Your task to perform on an android device: open app "The Home Depot" Image 0: 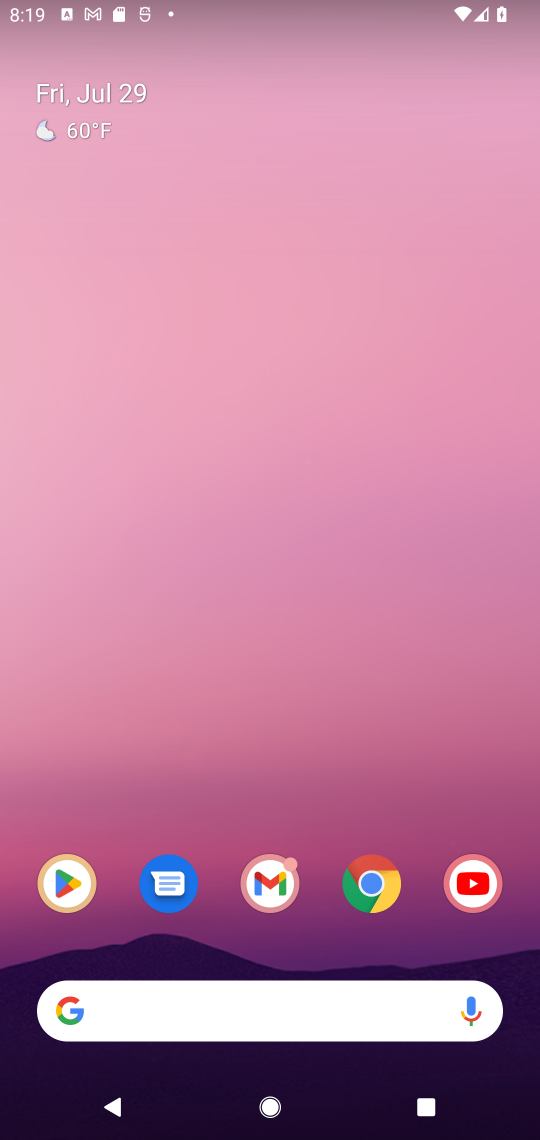
Step 0: click (78, 866)
Your task to perform on an android device: open app "The Home Depot" Image 1: 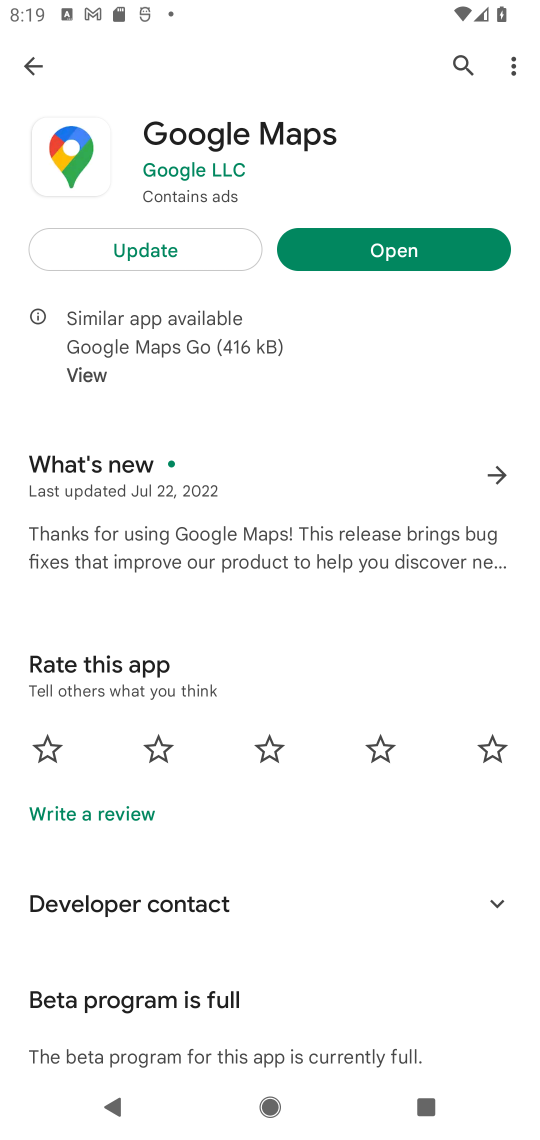
Step 1: click (455, 72)
Your task to perform on an android device: open app "The Home Depot" Image 2: 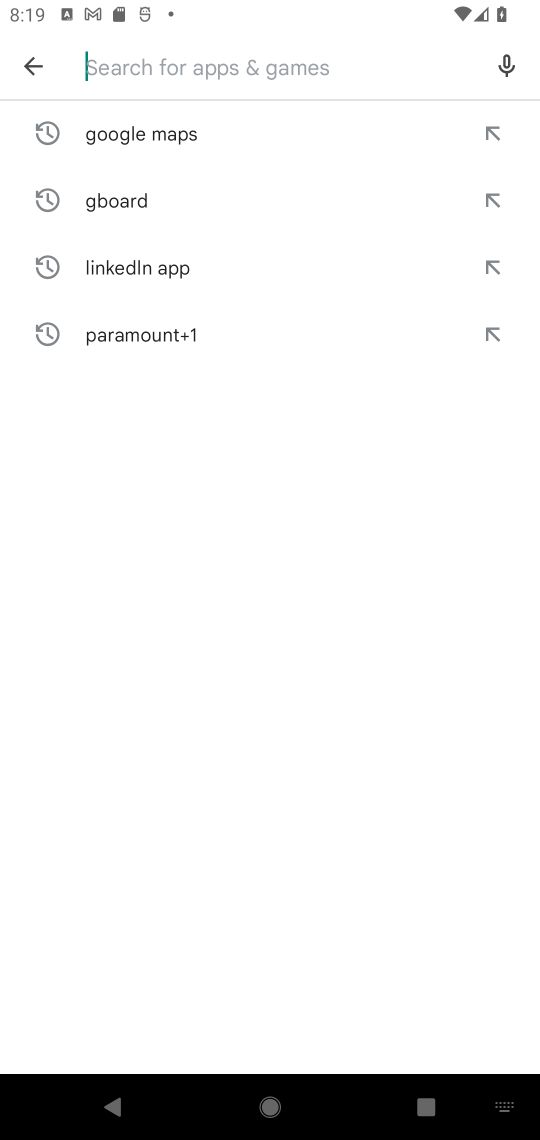
Step 2: press back button
Your task to perform on an android device: open app "The Home Depot" Image 3: 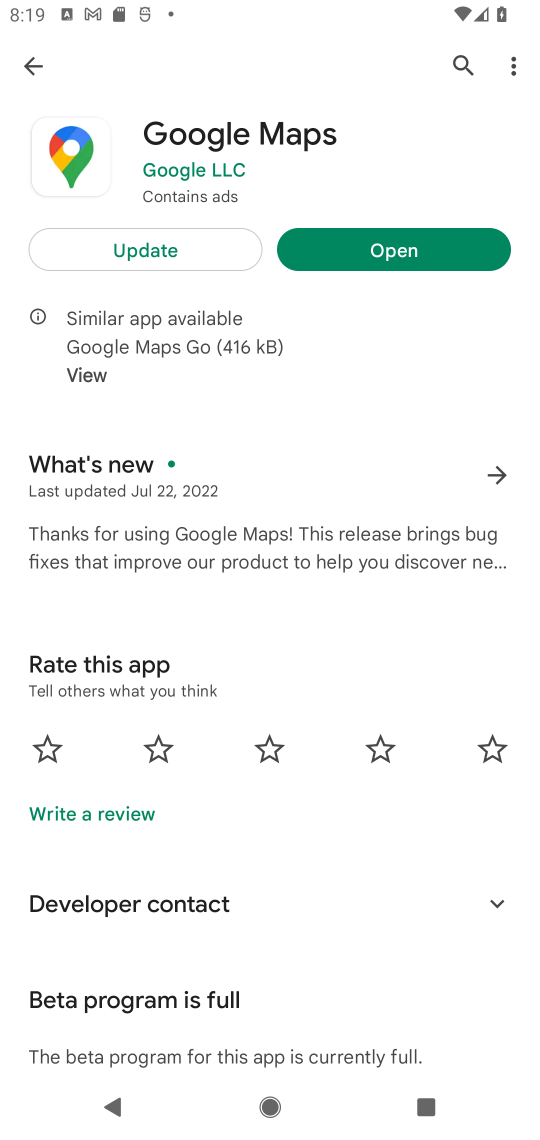
Step 3: press home button
Your task to perform on an android device: open app "The Home Depot" Image 4: 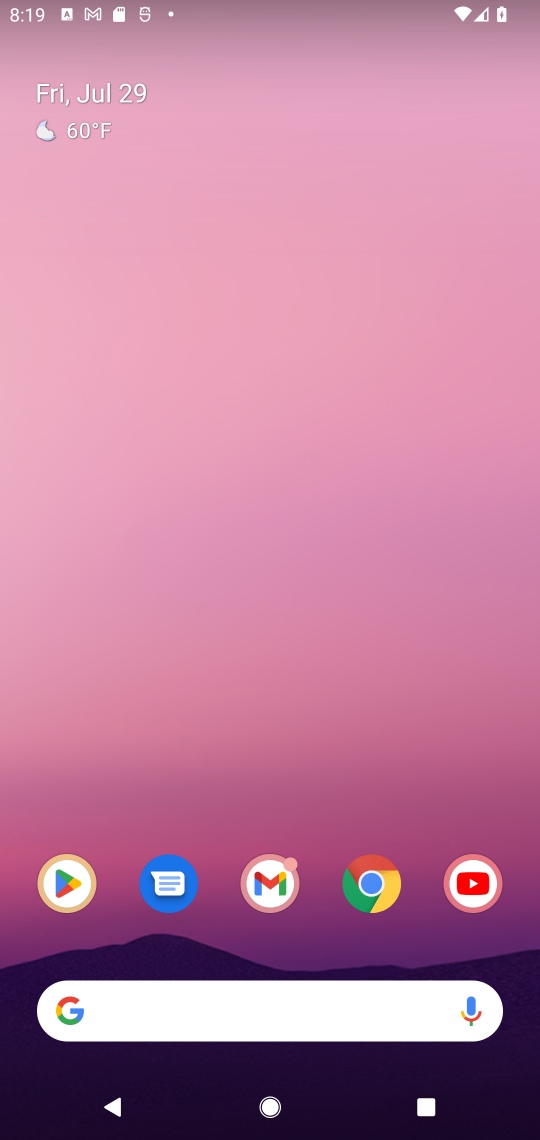
Step 4: click (75, 883)
Your task to perform on an android device: open app "The Home Depot" Image 5: 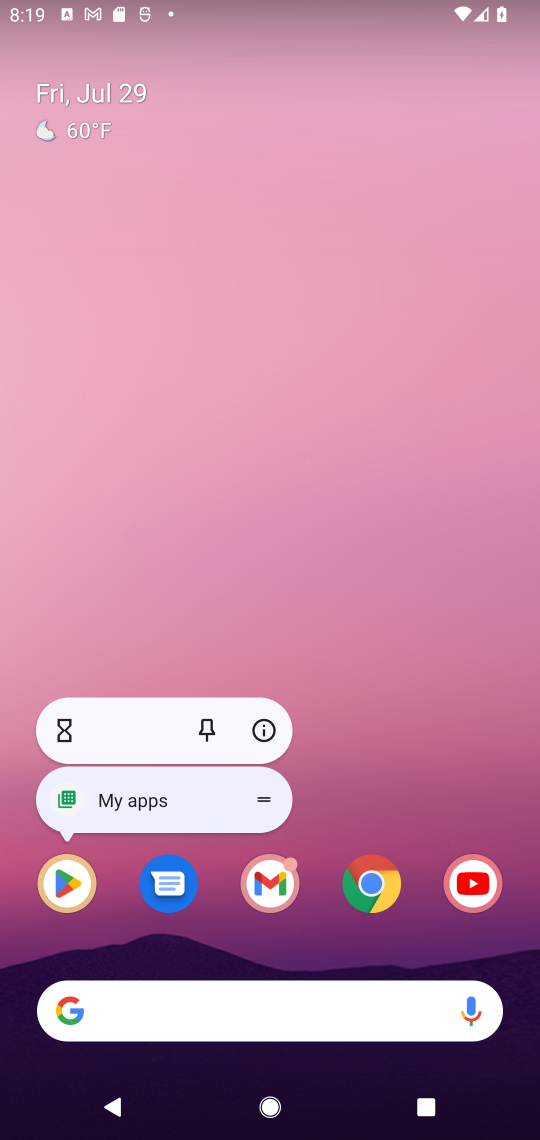
Step 5: click (87, 883)
Your task to perform on an android device: open app "The Home Depot" Image 6: 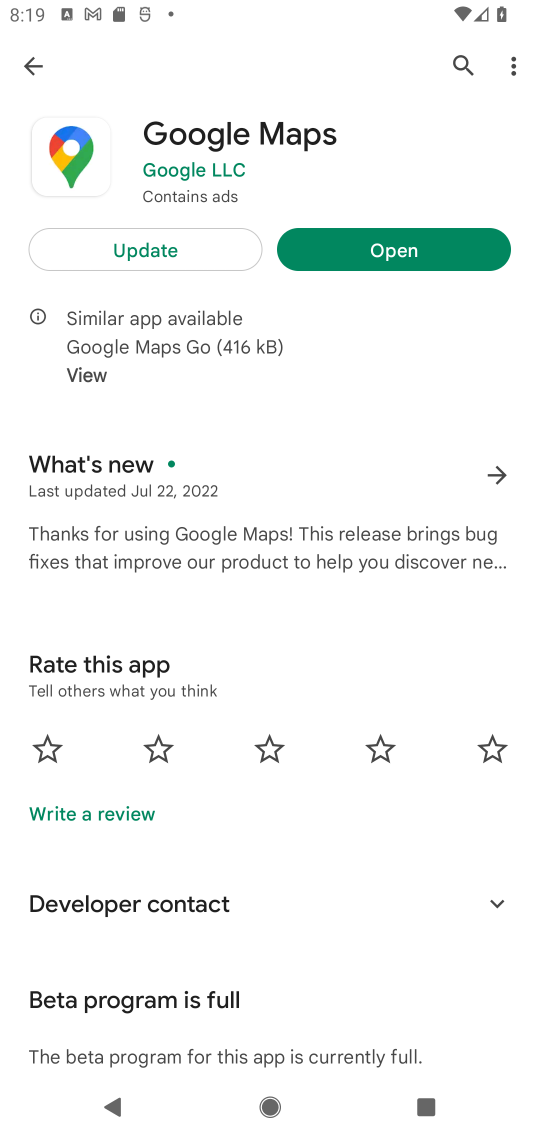
Step 6: click (453, 64)
Your task to perform on an android device: open app "The Home Depot" Image 7: 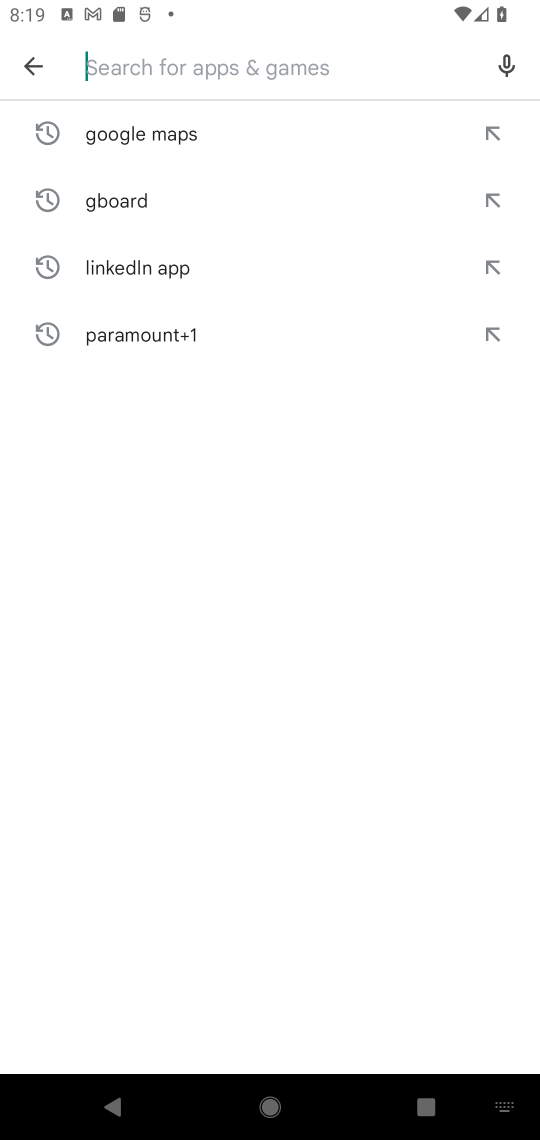
Step 7: click (312, 65)
Your task to perform on an android device: open app "The Home Depot" Image 8: 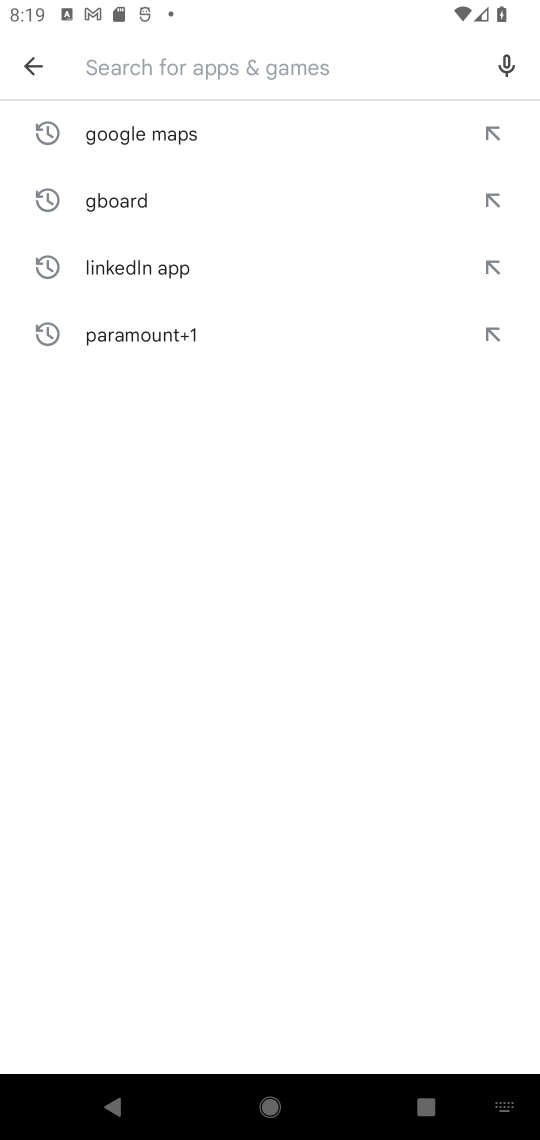
Step 8: type "the home depot"
Your task to perform on an android device: open app "The Home Depot" Image 9: 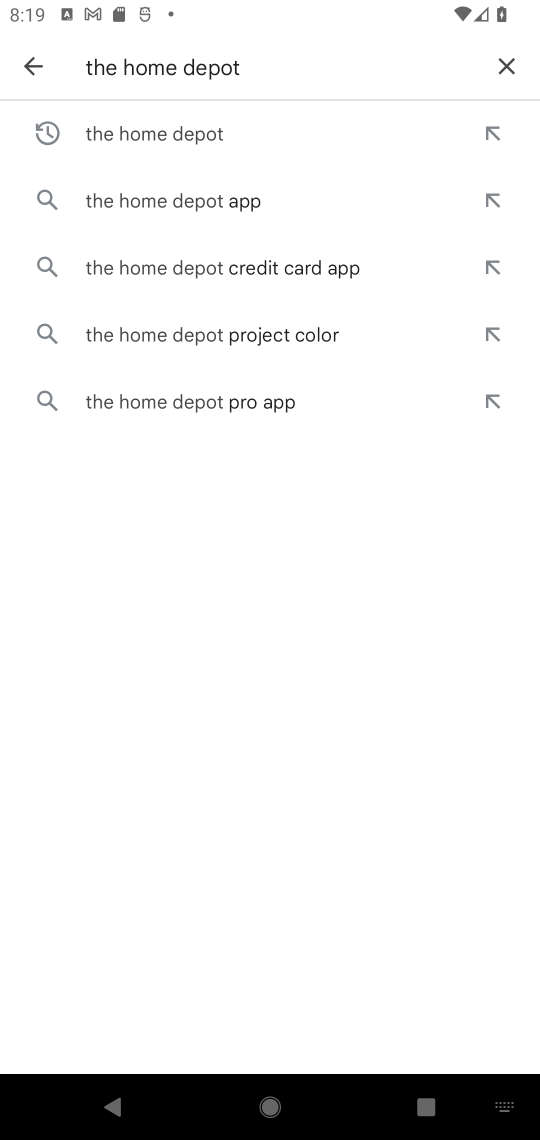
Step 9: click (193, 133)
Your task to perform on an android device: open app "The Home Depot" Image 10: 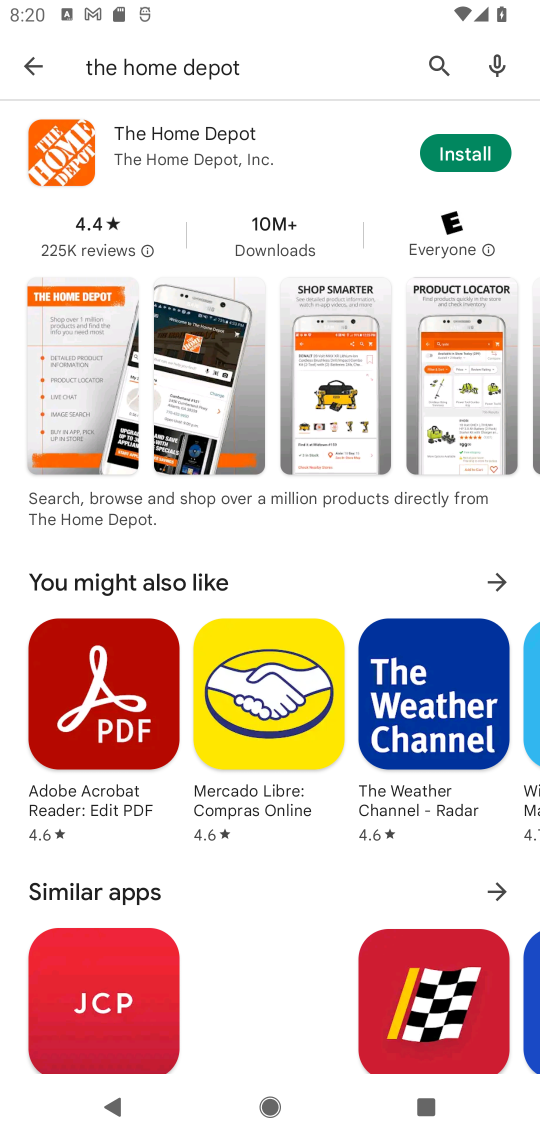
Step 10: task complete